Your task to perform on an android device: Do I have any events tomorrow? Image 0: 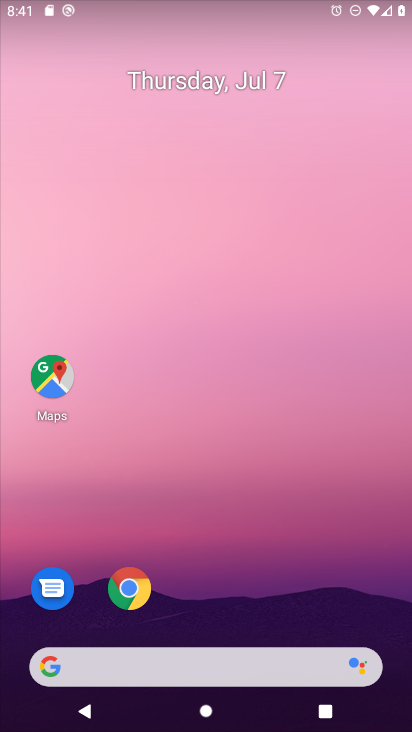
Step 0: click (209, 313)
Your task to perform on an android device: Do I have any events tomorrow? Image 1: 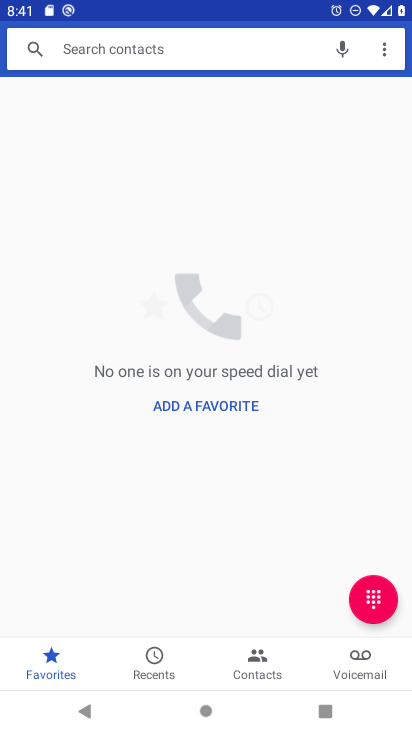
Step 1: press home button
Your task to perform on an android device: Do I have any events tomorrow? Image 2: 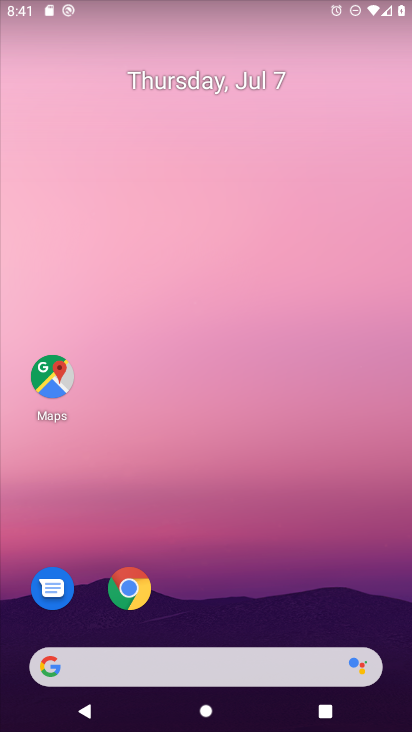
Step 2: drag from (194, 601) to (199, 220)
Your task to perform on an android device: Do I have any events tomorrow? Image 3: 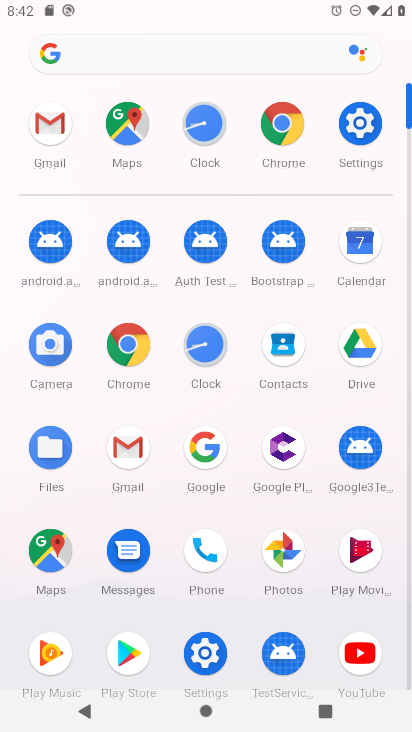
Step 3: click (345, 233)
Your task to perform on an android device: Do I have any events tomorrow? Image 4: 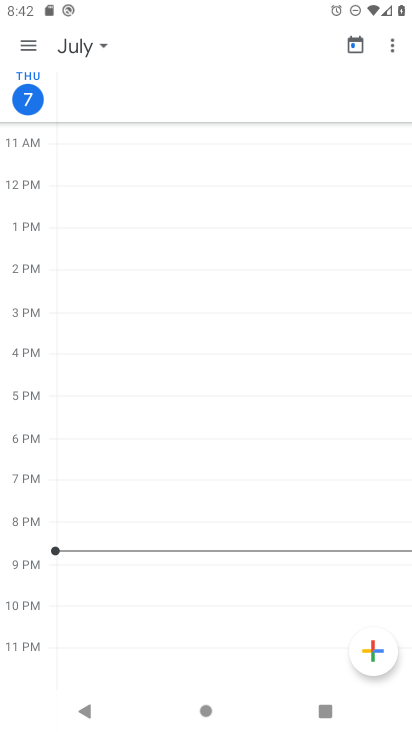
Step 4: click (26, 46)
Your task to perform on an android device: Do I have any events tomorrow? Image 5: 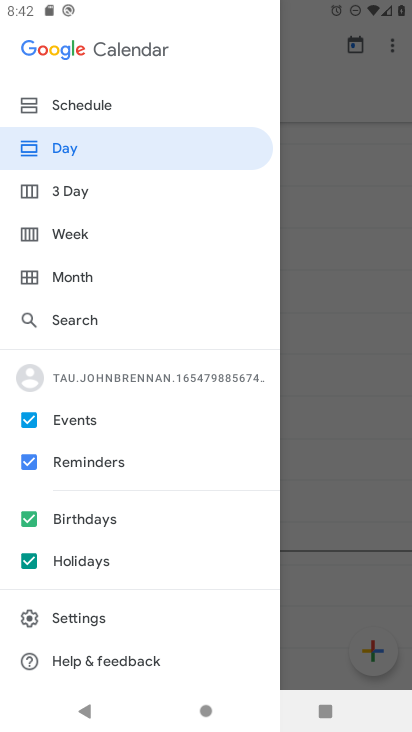
Step 5: click (84, 276)
Your task to perform on an android device: Do I have any events tomorrow? Image 6: 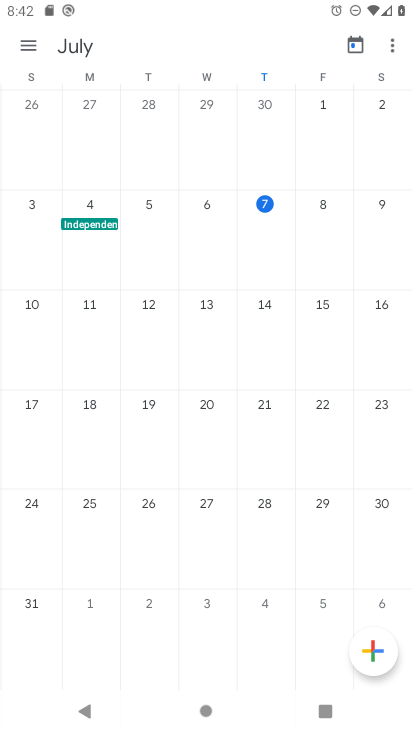
Step 6: click (378, 221)
Your task to perform on an android device: Do I have any events tomorrow? Image 7: 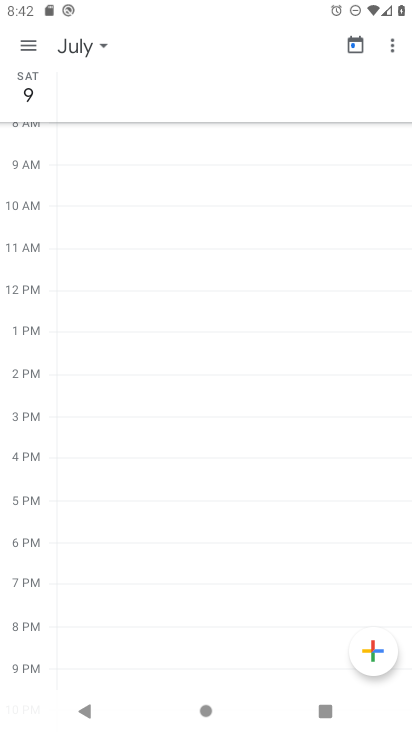
Step 7: task complete